Your task to perform on an android device: Go to Android settings Image 0: 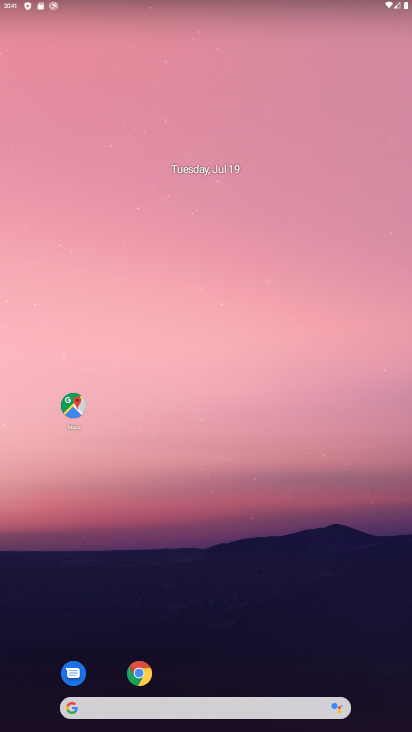
Step 0: drag from (179, 608) to (249, 4)
Your task to perform on an android device: Go to Android settings Image 1: 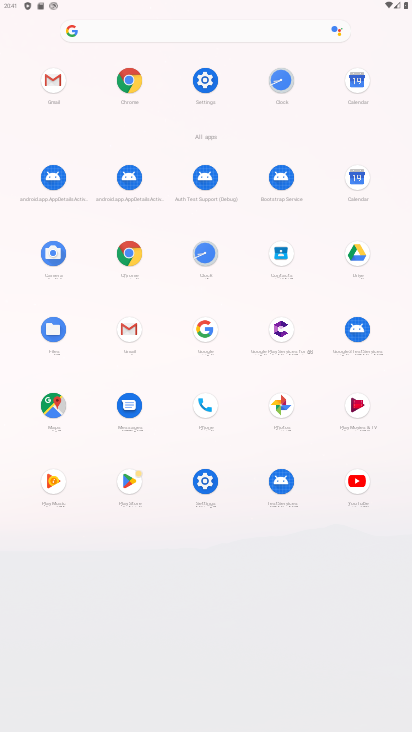
Step 1: click (210, 495)
Your task to perform on an android device: Go to Android settings Image 2: 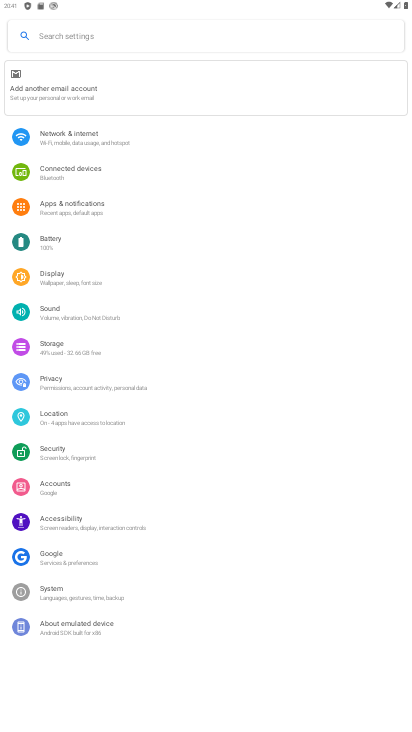
Step 2: click (73, 623)
Your task to perform on an android device: Go to Android settings Image 3: 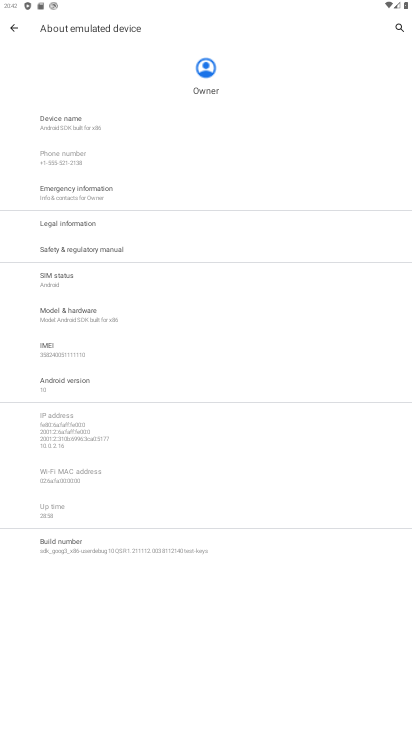
Step 3: click (74, 378)
Your task to perform on an android device: Go to Android settings Image 4: 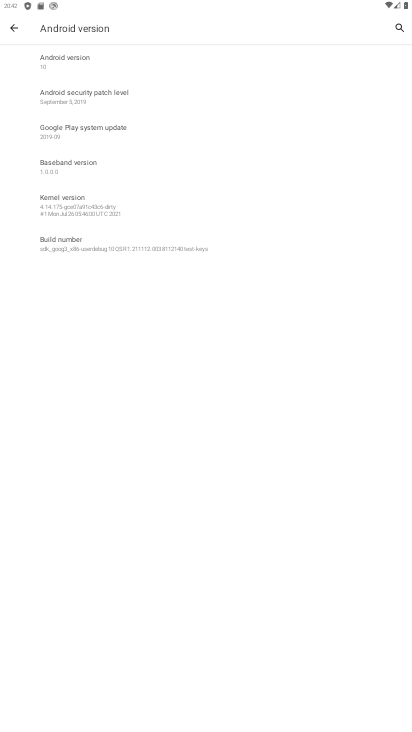
Step 4: task complete